Your task to perform on an android device: toggle sleep mode Image 0: 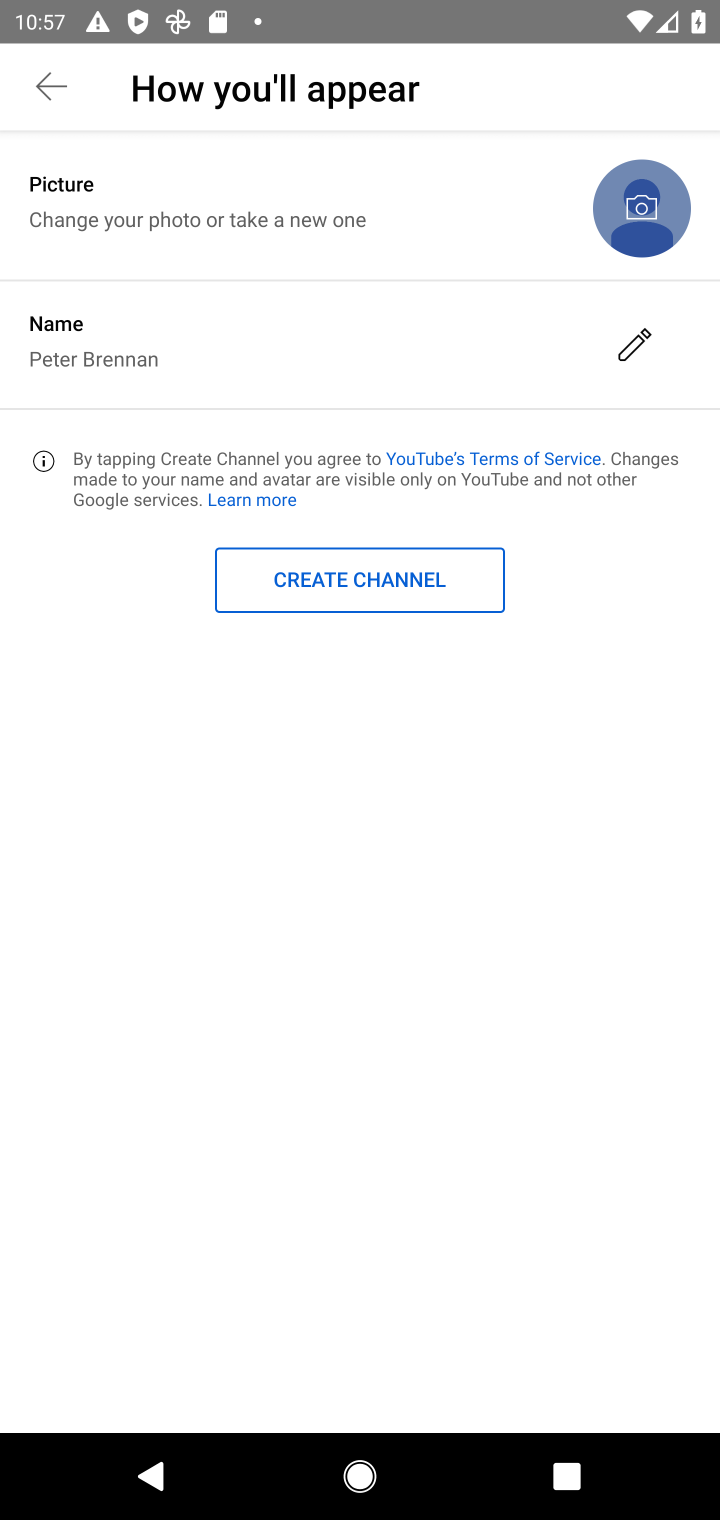
Step 0: press home button
Your task to perform on an android device: toggle sleep mode Image 1: 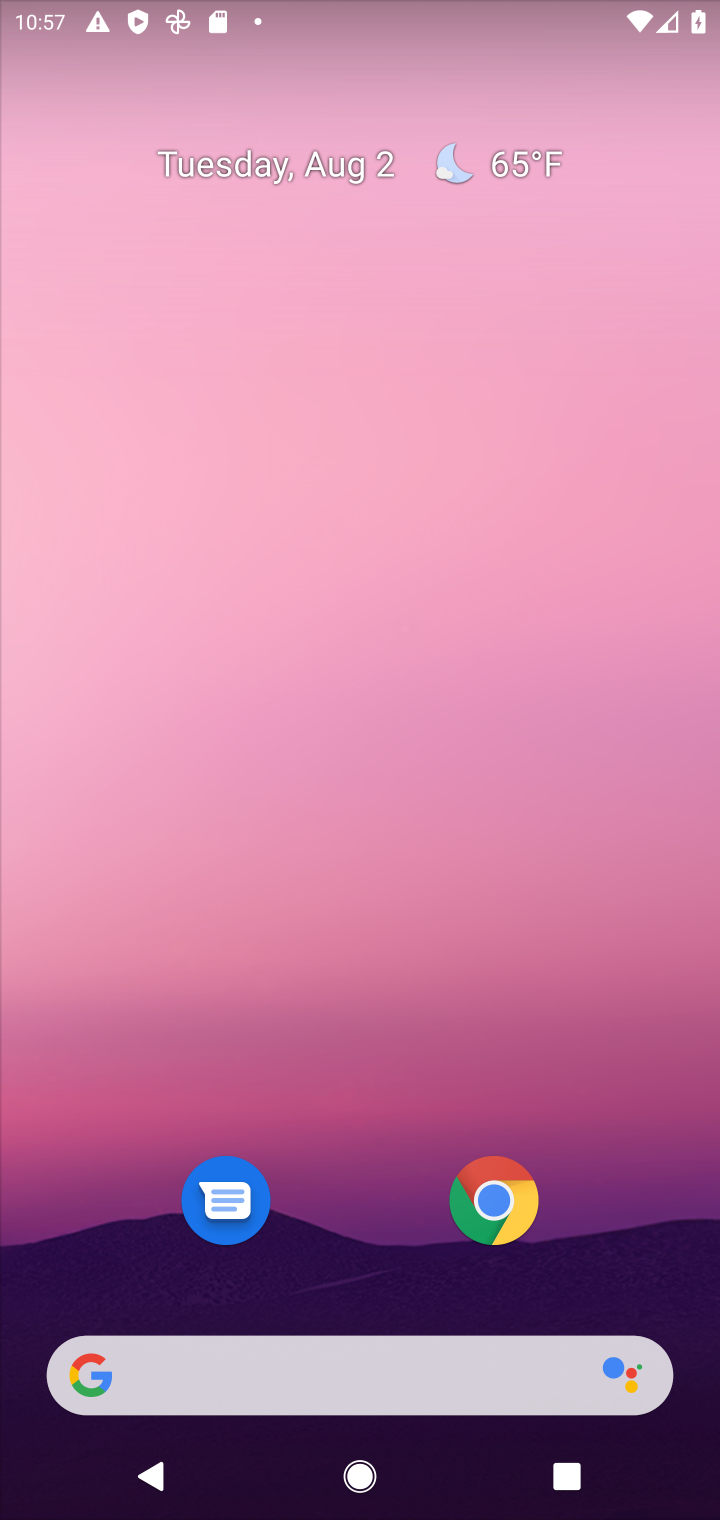
Step 1: drag from (661, 1264) to (565, 476)
Your task to perform on an android device: toggle sleep mode Image 2: 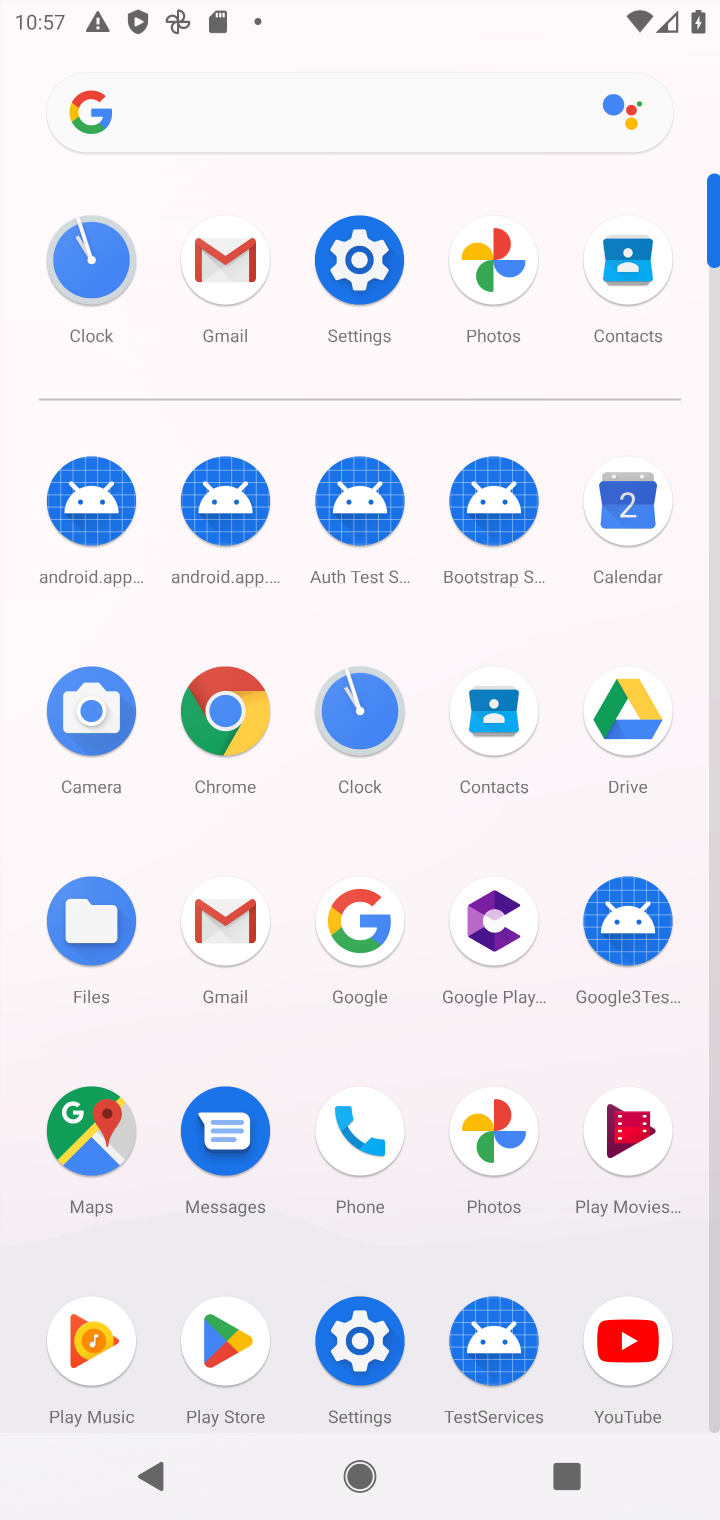
Step 2: click (363, 1338)
Your task to perform on an android device: toggle sleep mode Image 3: 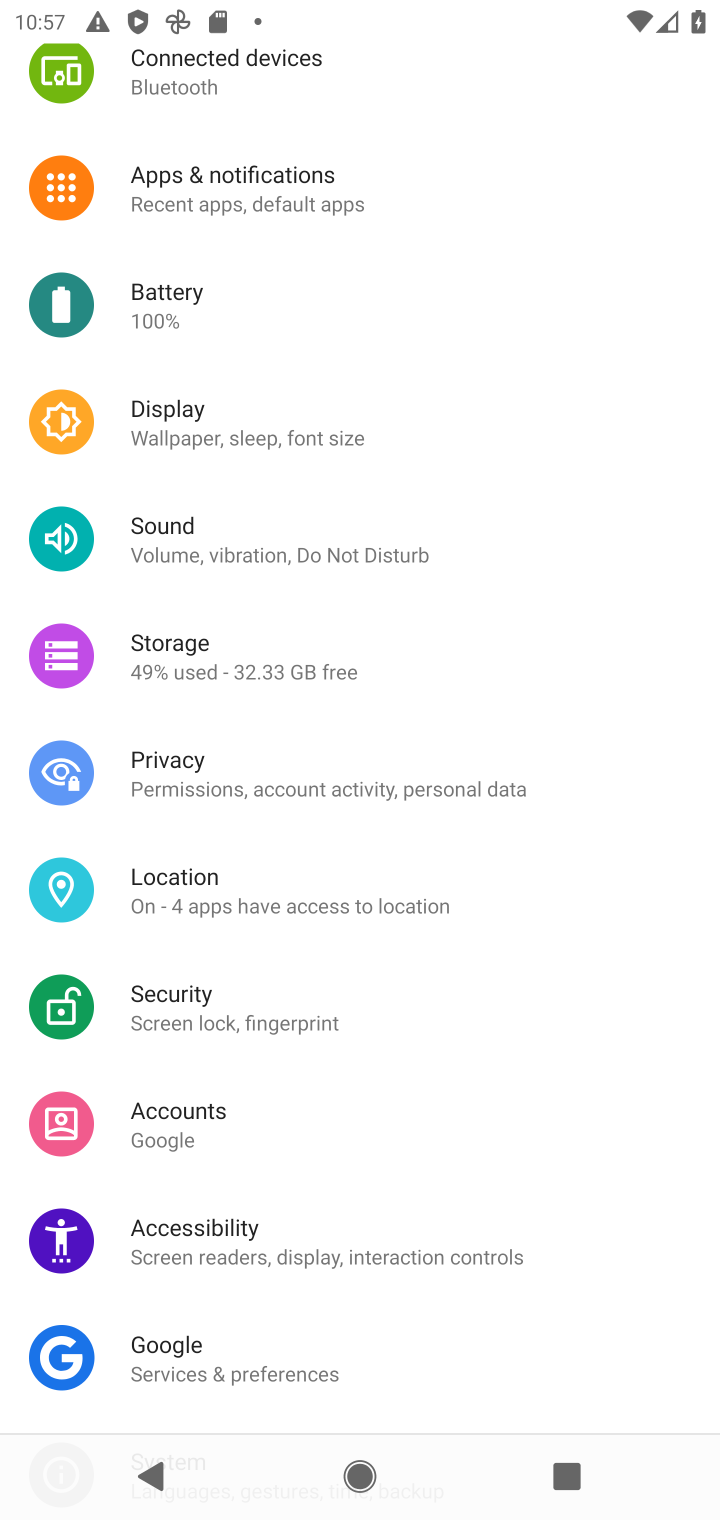
Step 3: click (170, 403)
Your task to perform on an android device: toggle sleep mode Image 4: 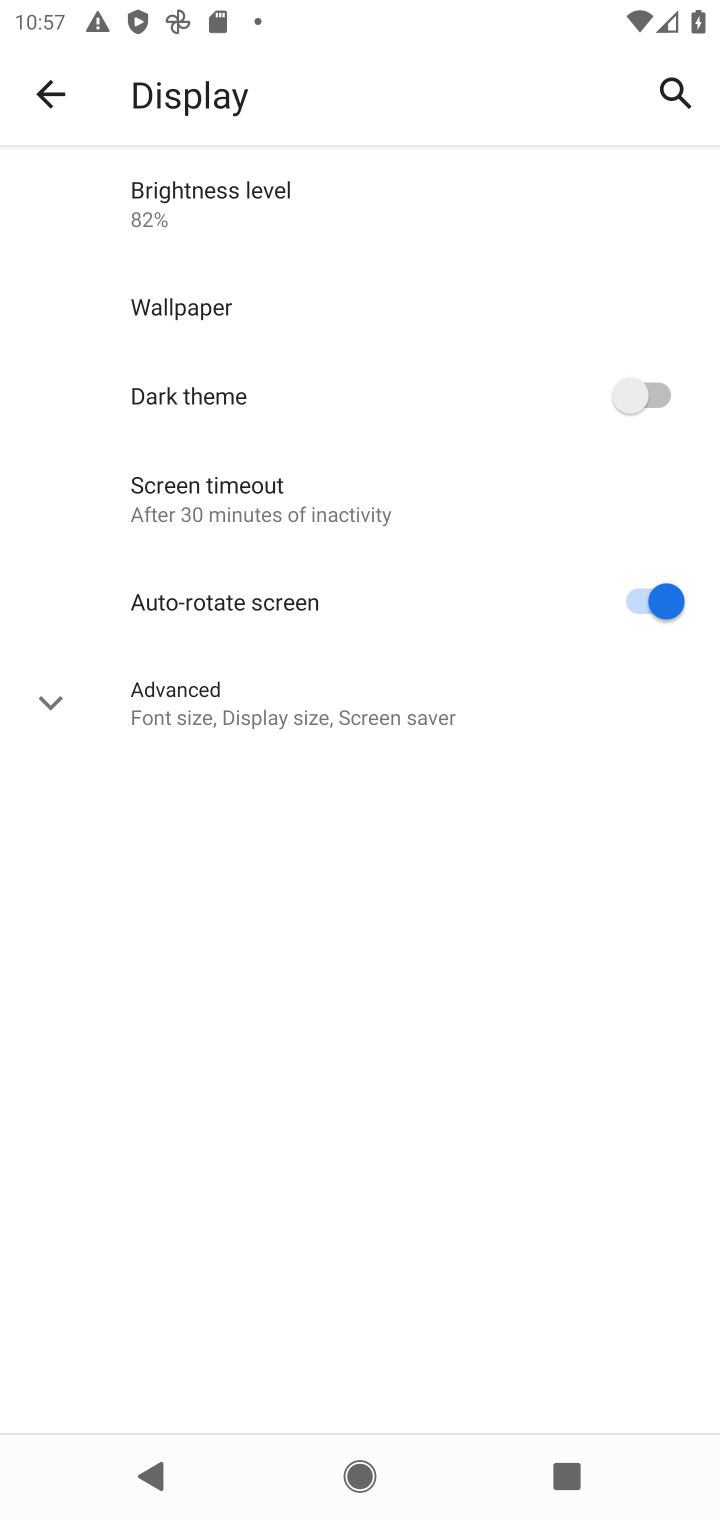
Step 4: click (37, 701)
Your task to perform on an android device: toggle sleep mode Image 5: 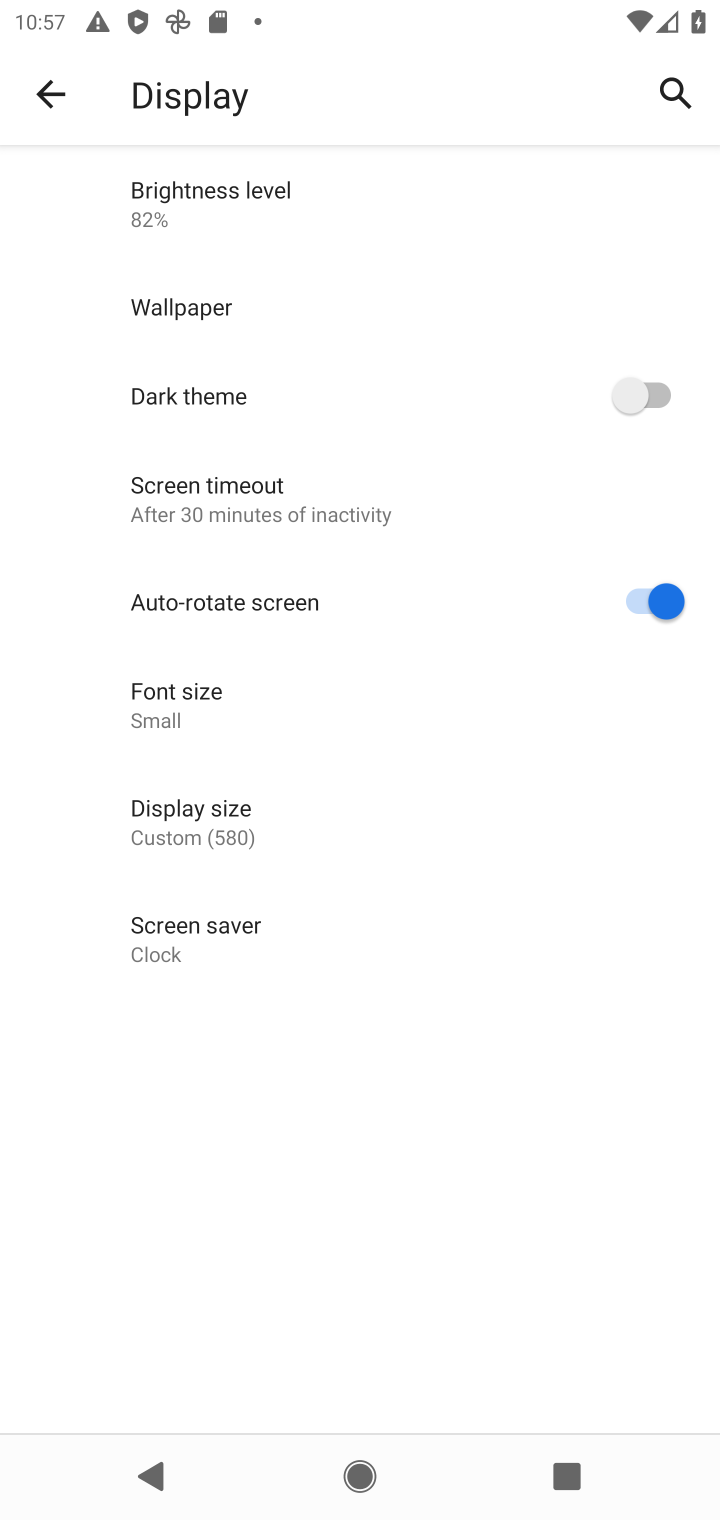
Step 5: task complete